Your task to perform on an android device: turn on wifi Image 0: 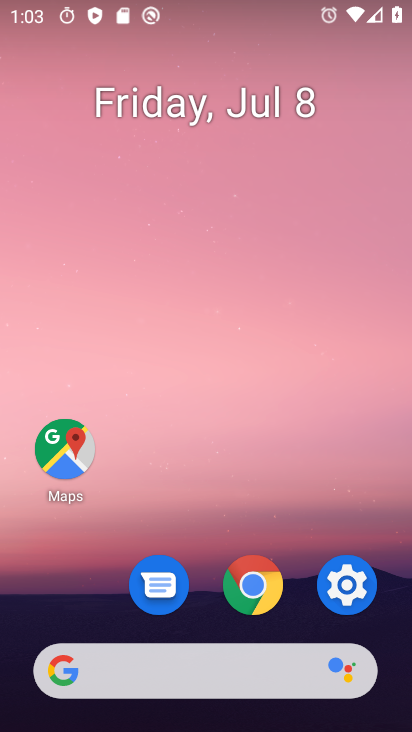
Step 0: click (332, 586)
Your task to perform on an android device: turn on wifi Image 1: 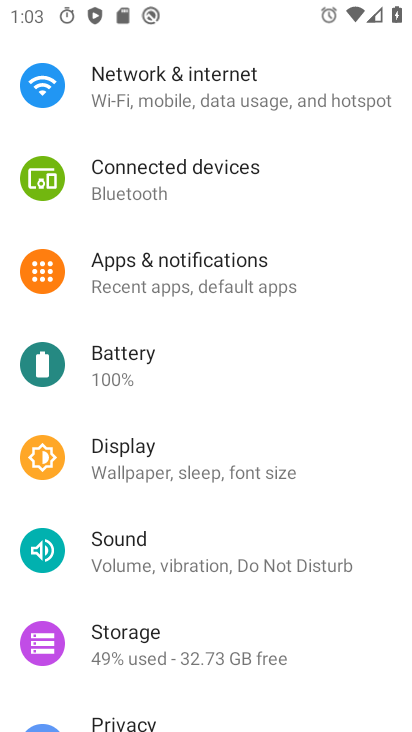
Step 1: click (200, 103)
Your task to perform on an android device: turn on wifi Image 2: 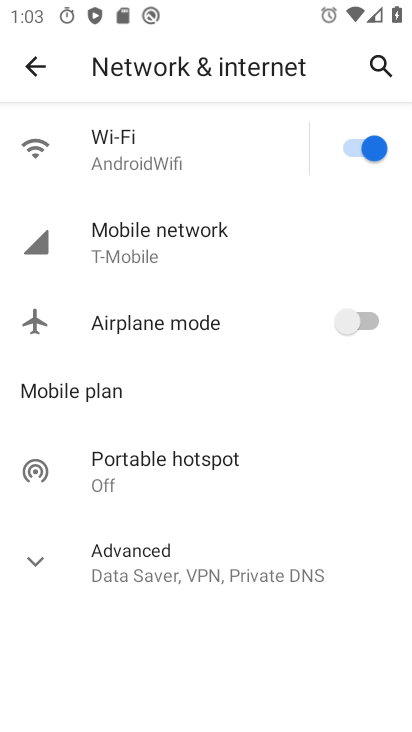
Step 2: click (127, 161)
Your task to perform on an android device: turn on wifi Image 3: 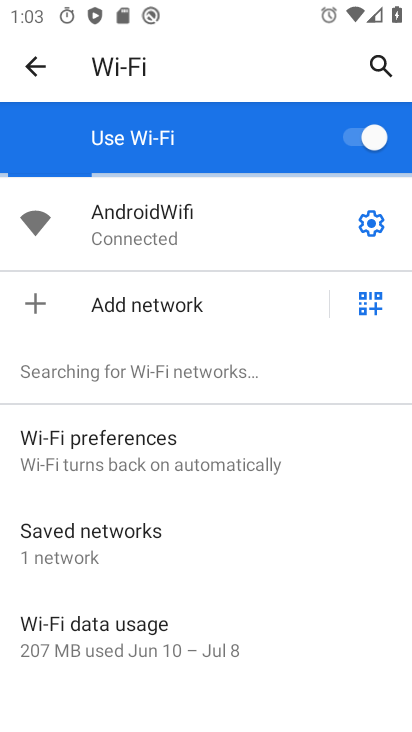
Step 3: click (382, 118)
Your task to perform on an android device: turn on wifi Image 4: 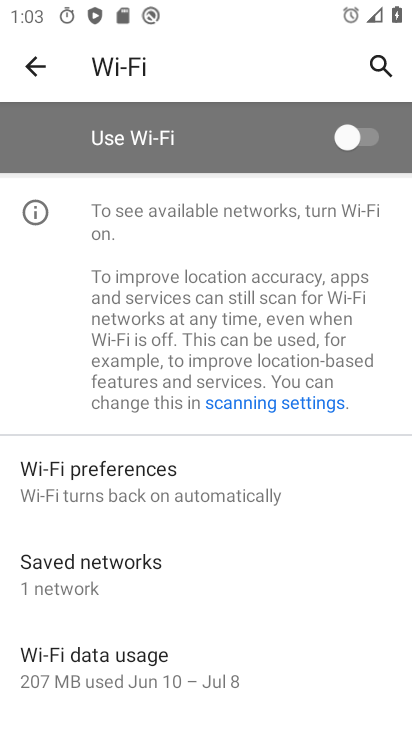
Step 4: click (369, 136)
Your task to perform on an android device: turn on wifi Image 5: 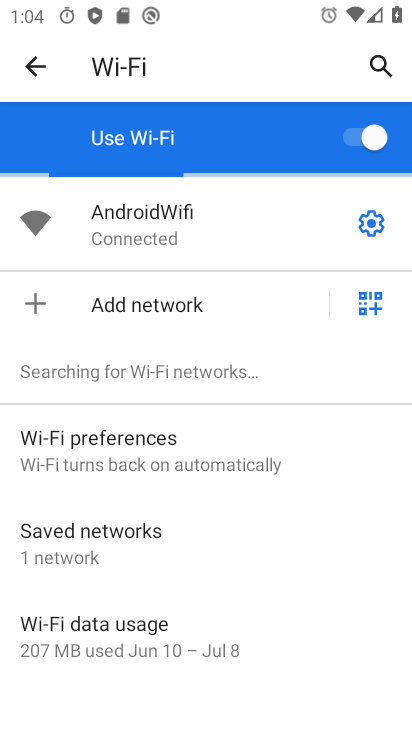
Step 5: task complete